Your task to perform on an android device: Open ESPN.com Image 0: 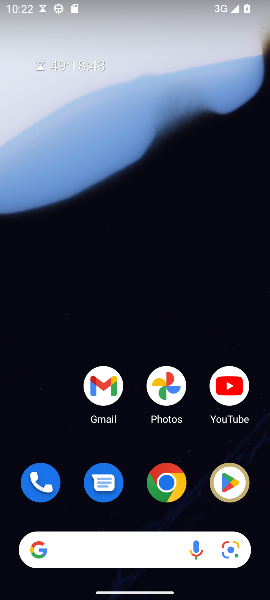
Step 0: drag from (113, 534) to (147, 233)
Your task to perform on an android device: Open ESPN.com Image 1: 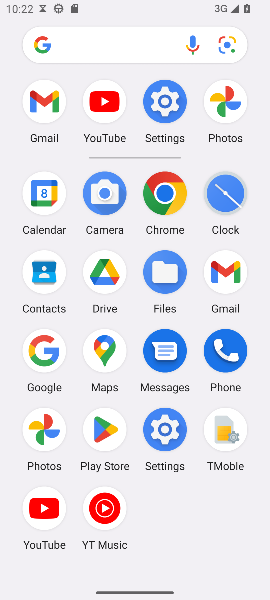
Step 1: click (175, 203)
Your task to perform on an android device: Open ESPN.com Image 2: 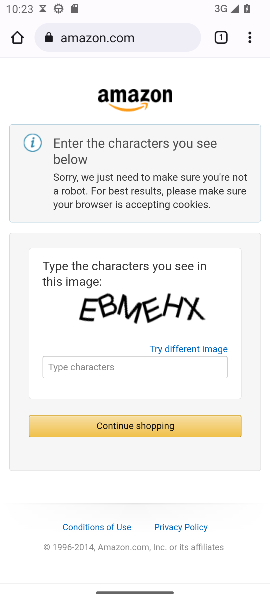
Step 2: click (156, 44)
Your task to perform on an android device: Open ESPN.com Image 3: 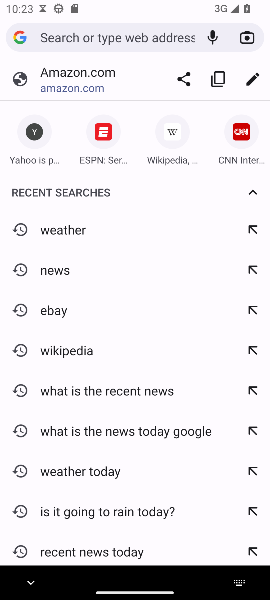
Step 3: type "ESPN.com"
Your task to perform on an android device: Open ESPN.com Image 4: 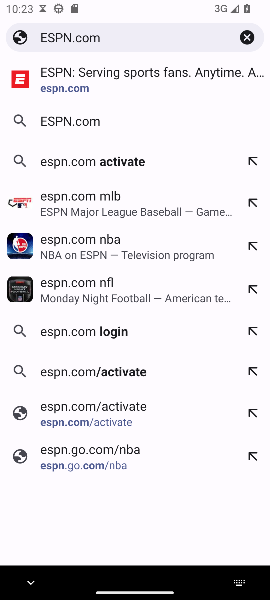
Step 4: click (126, 66)
Your task to perform on an android device: Open ESPN.com Image 5: 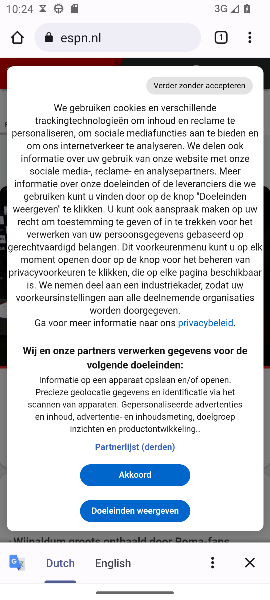
Step 5: task complete